Your task to perform on an android device: install app "Airtel Thanks" Image 0: 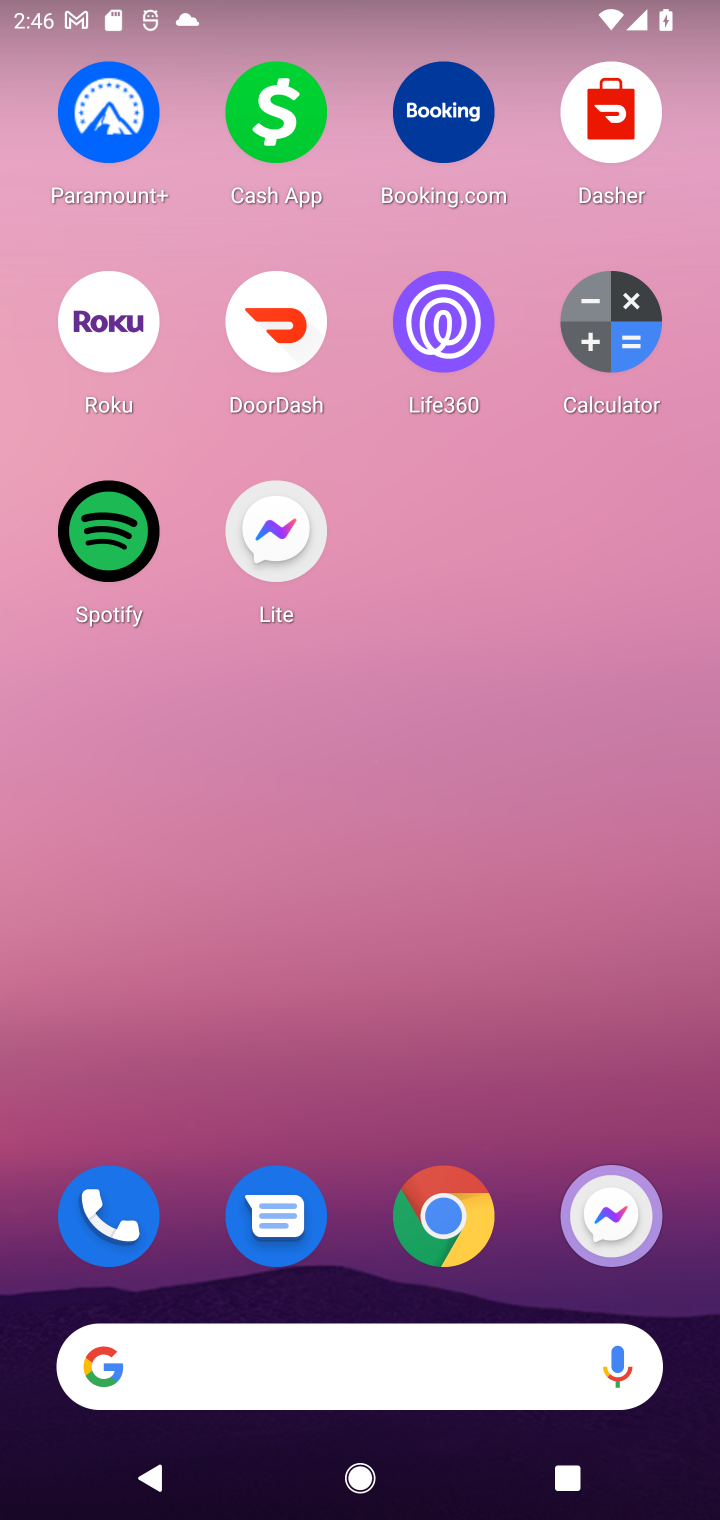
Step 0: drag from (410, 870) to (465, 397)
Your task to perform on an android device: install app "Airtel Thanks" Image 1: 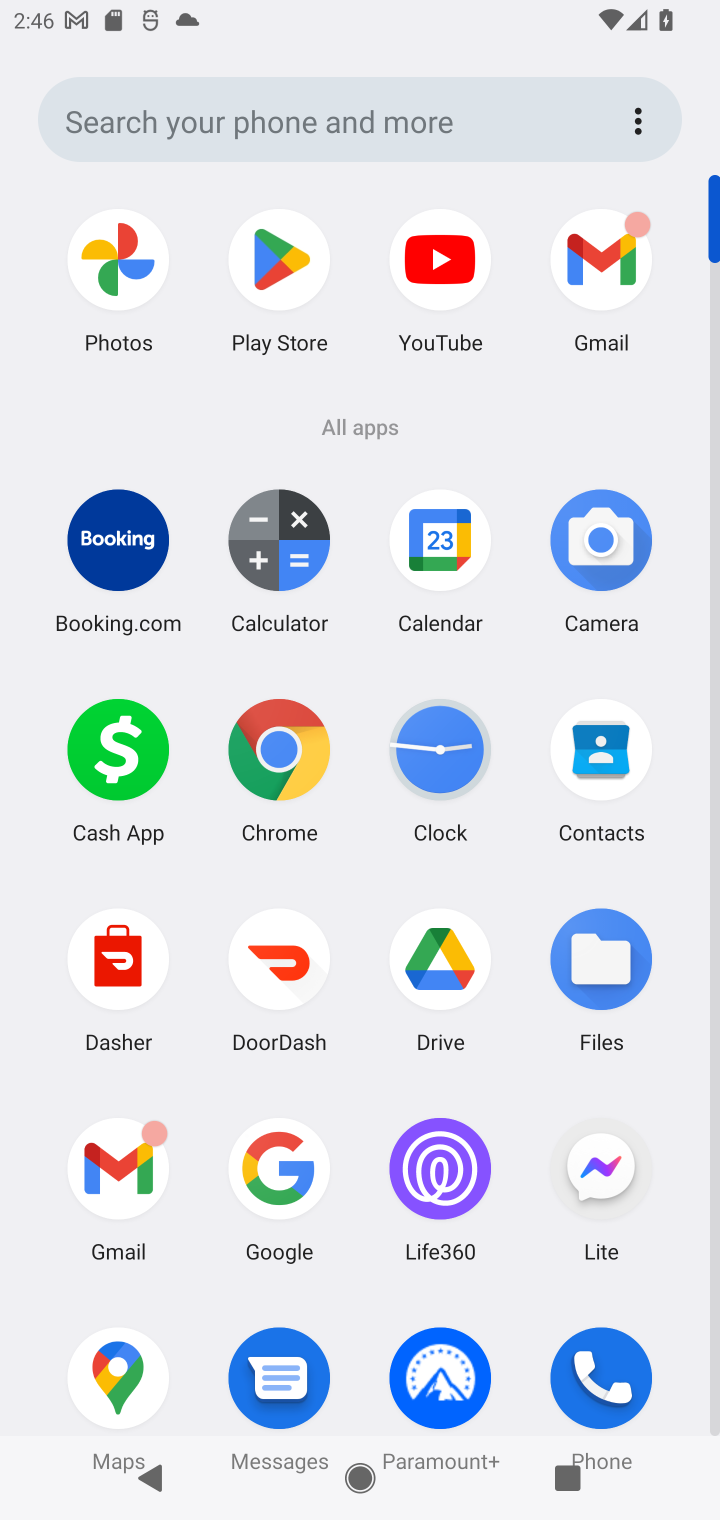
Step 1: click (244, 242)
Your task to perform on an android device: install app "Airtel Thanks" Image 2: 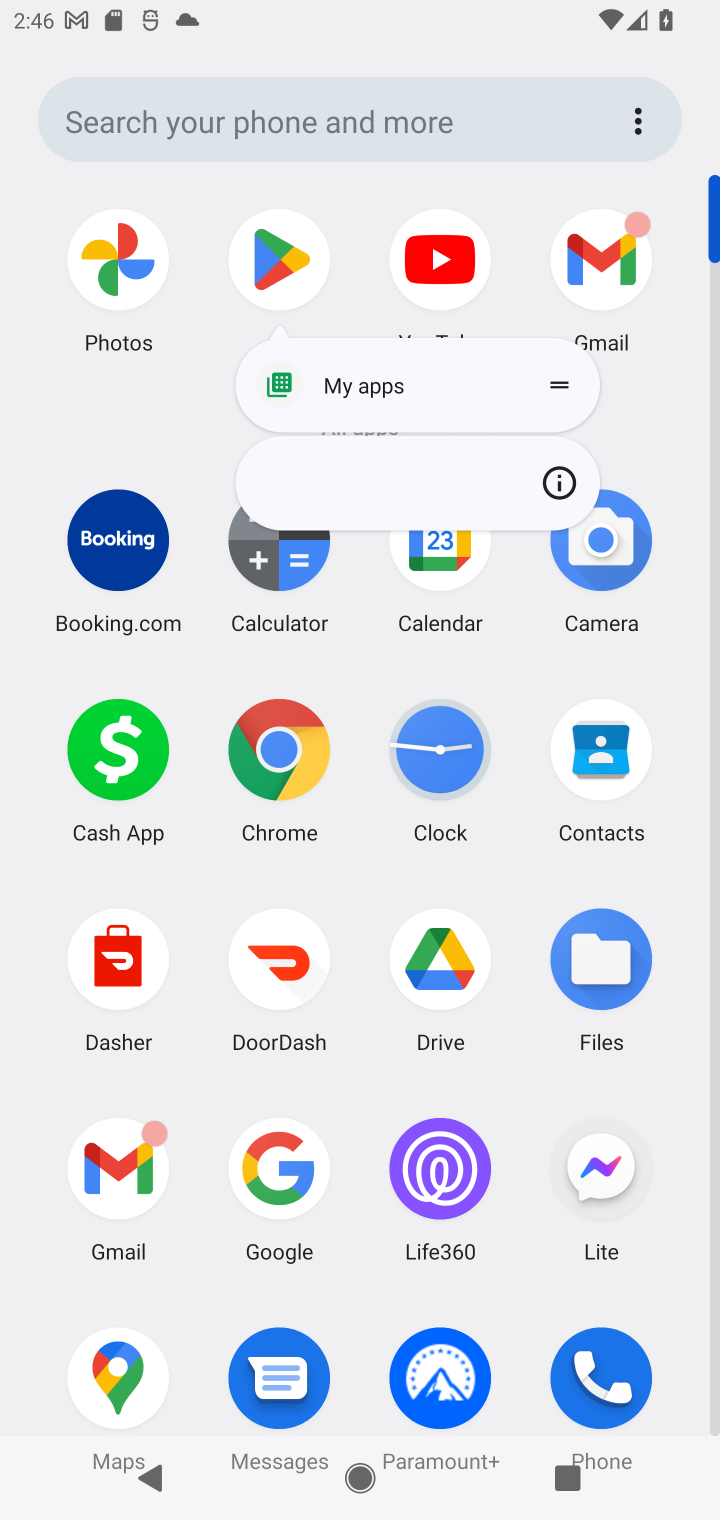
Step 2: click (249, 239)
Your task to perform on an android device: install app "Airtel Thanks" Image 3: 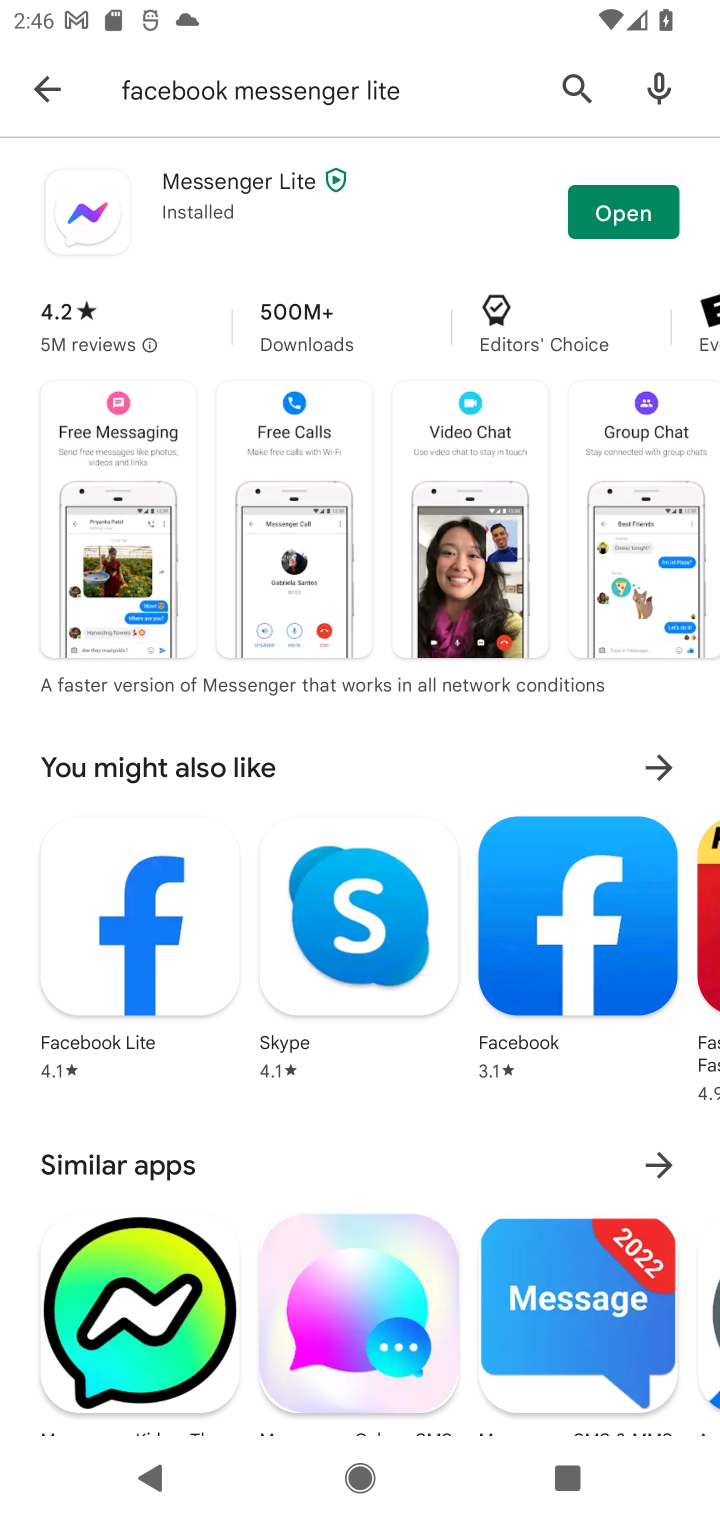
Step 3: click (51, 81)
Your task to perform on an android device: install app "Airtel Thanks" Image 4: 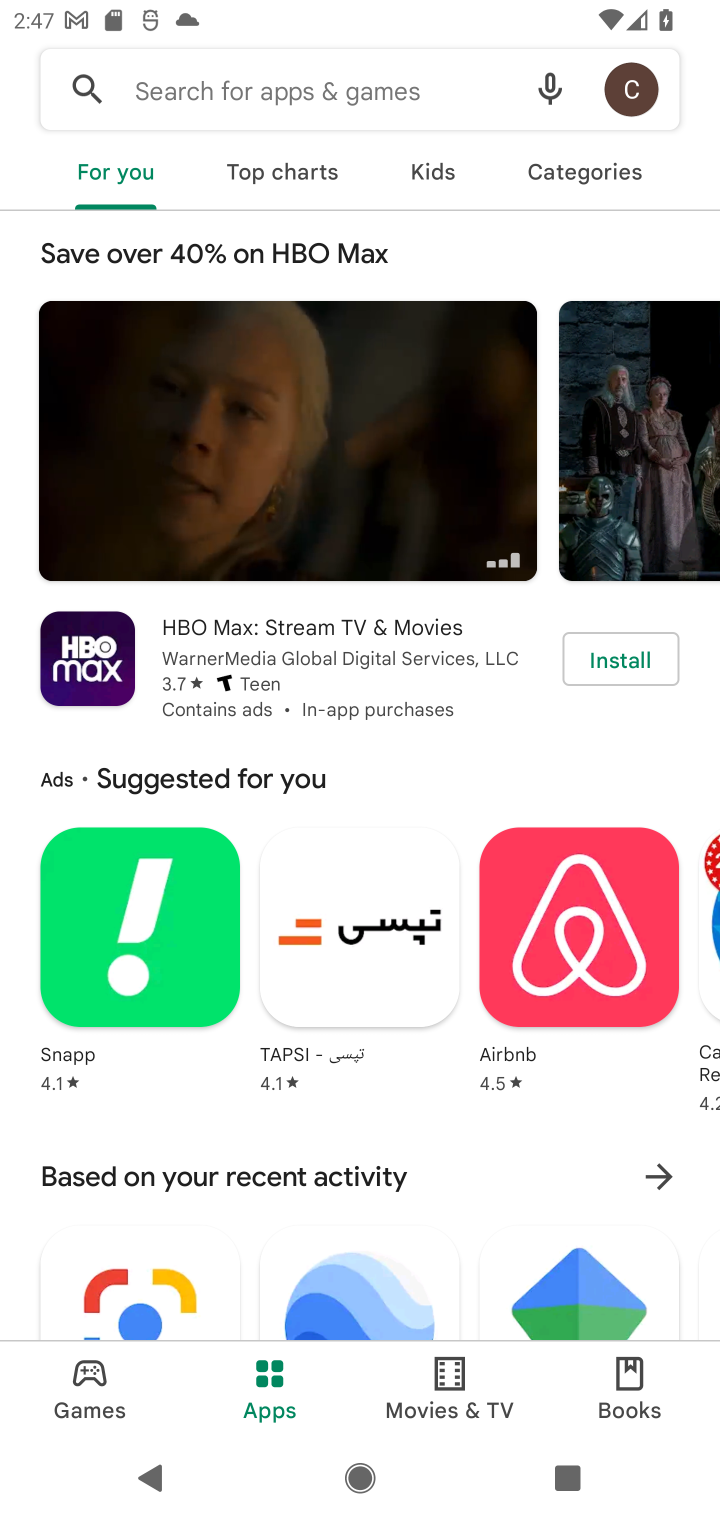
Step 4: click (299, 67)
Your task to perform on an android device: install app "Airtel Thanks" Image 5: 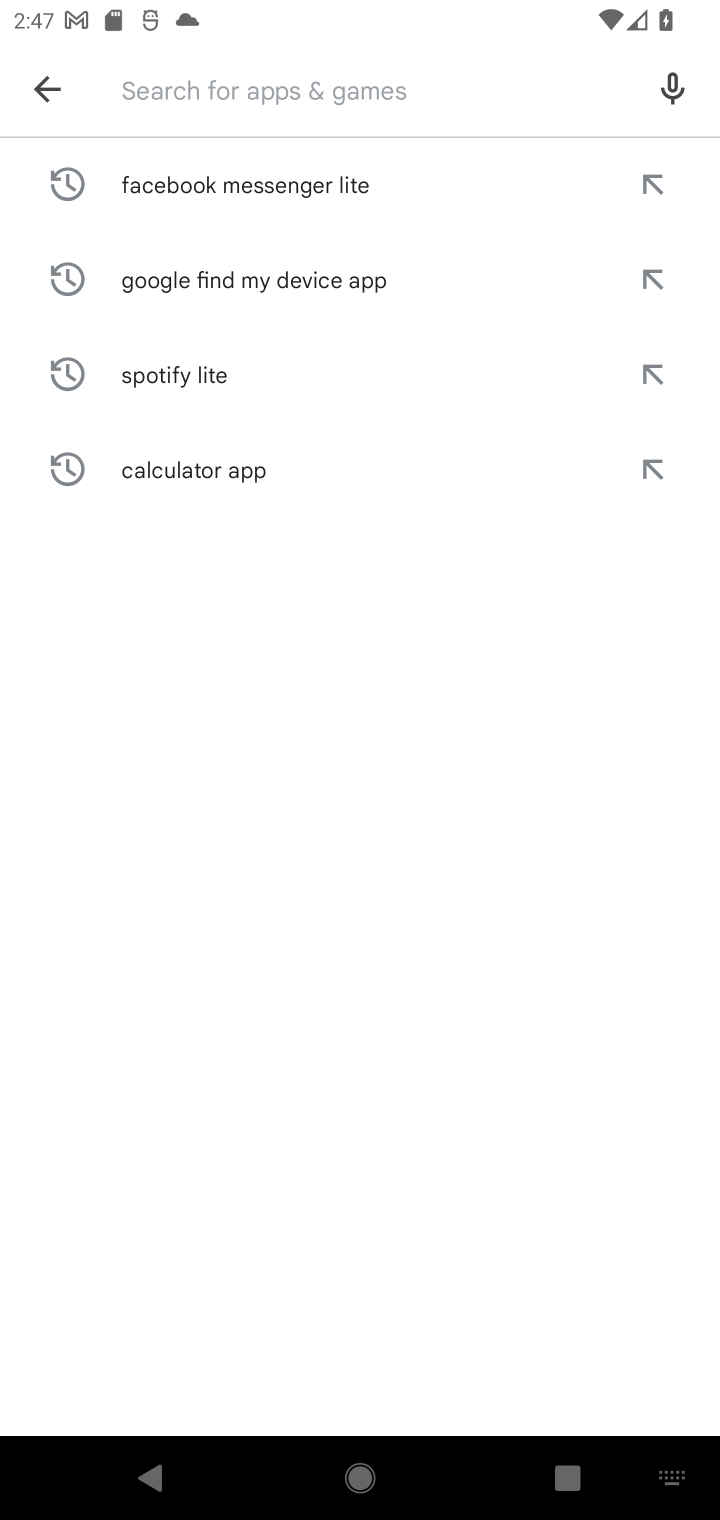
Step 5: type "Airtel Thanks "
Your task to perform on an android device: install app "Airtel Thanks" Image 6: 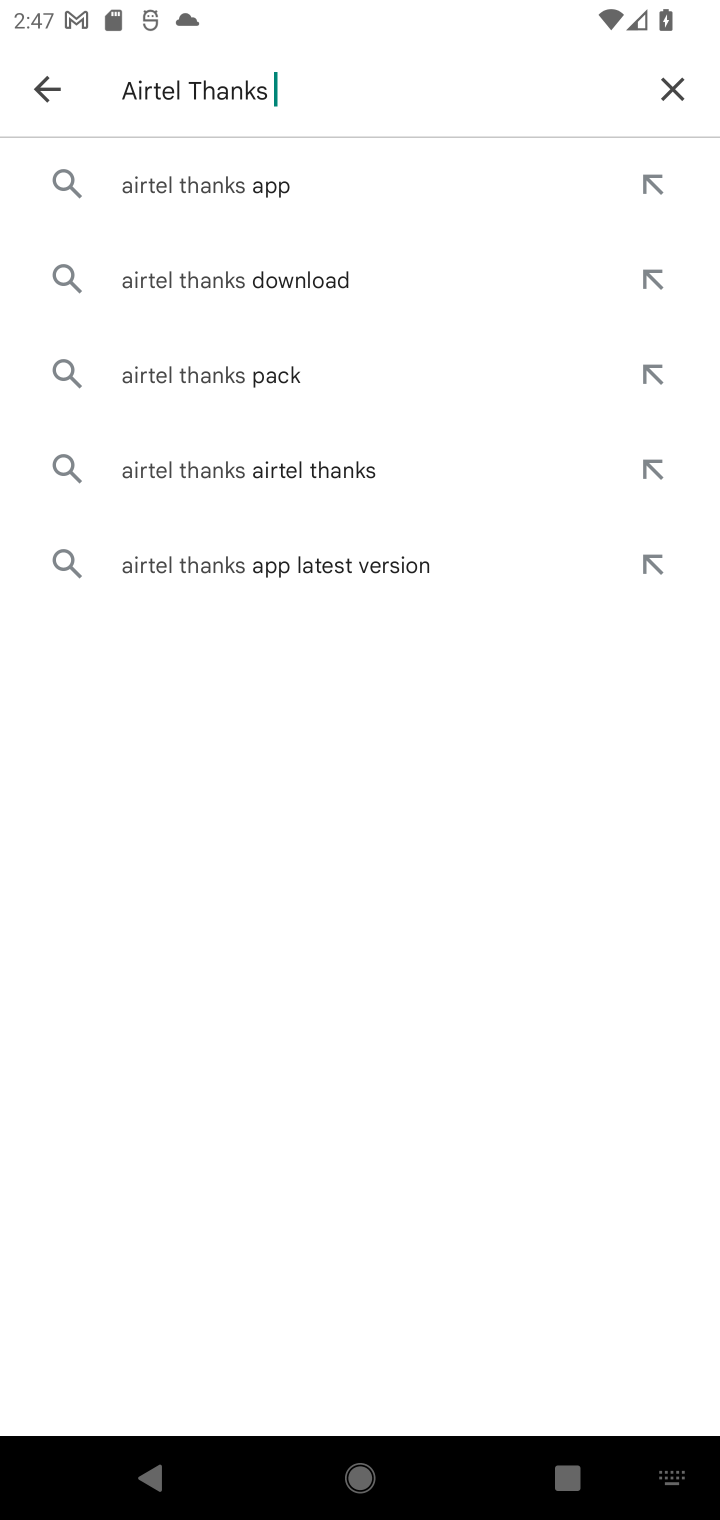
Step 6: click (432, 189)
Your task to perform on an android device: install app "Airtel Thanks" Image 7: 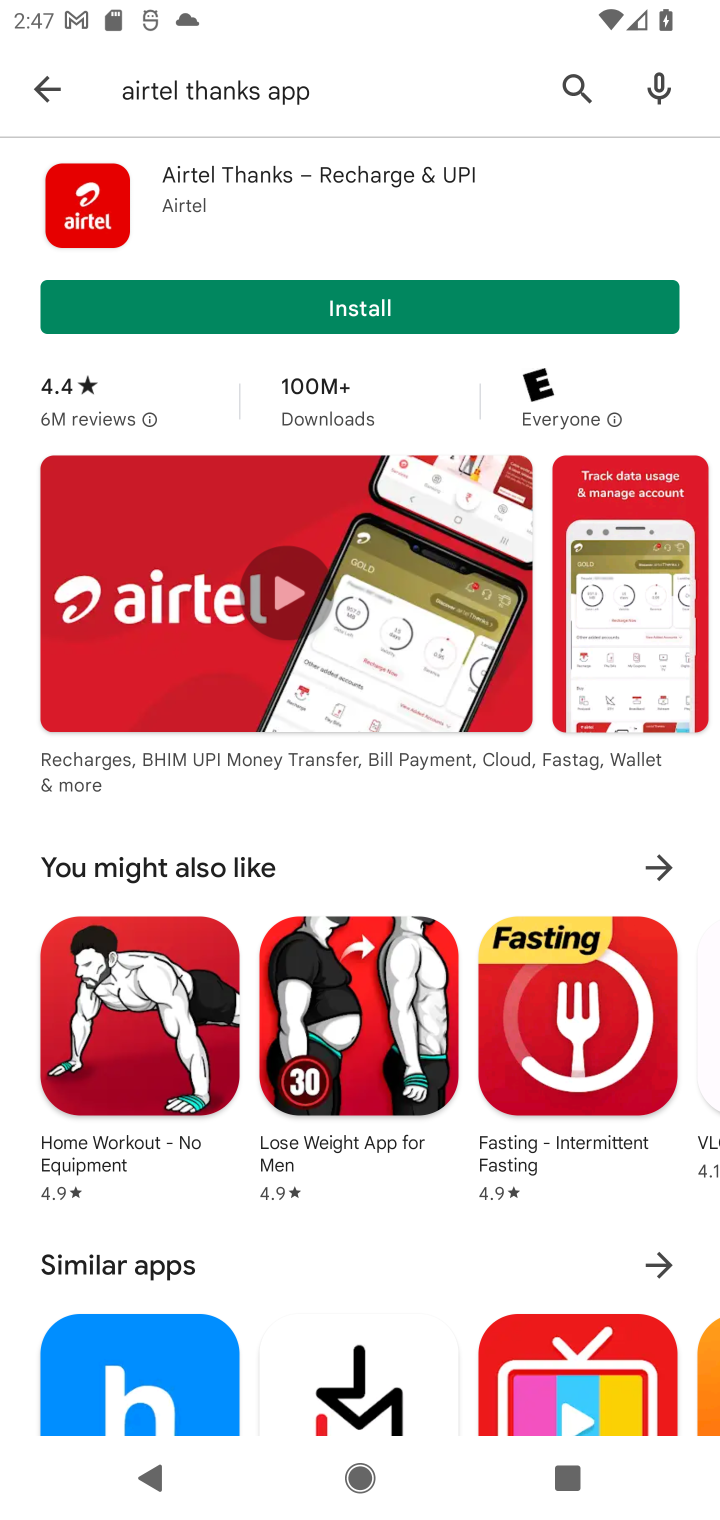
Step 7: click (437, 282)
Your task to perform on an android device: install app "Airtel Thanks" Image 8: 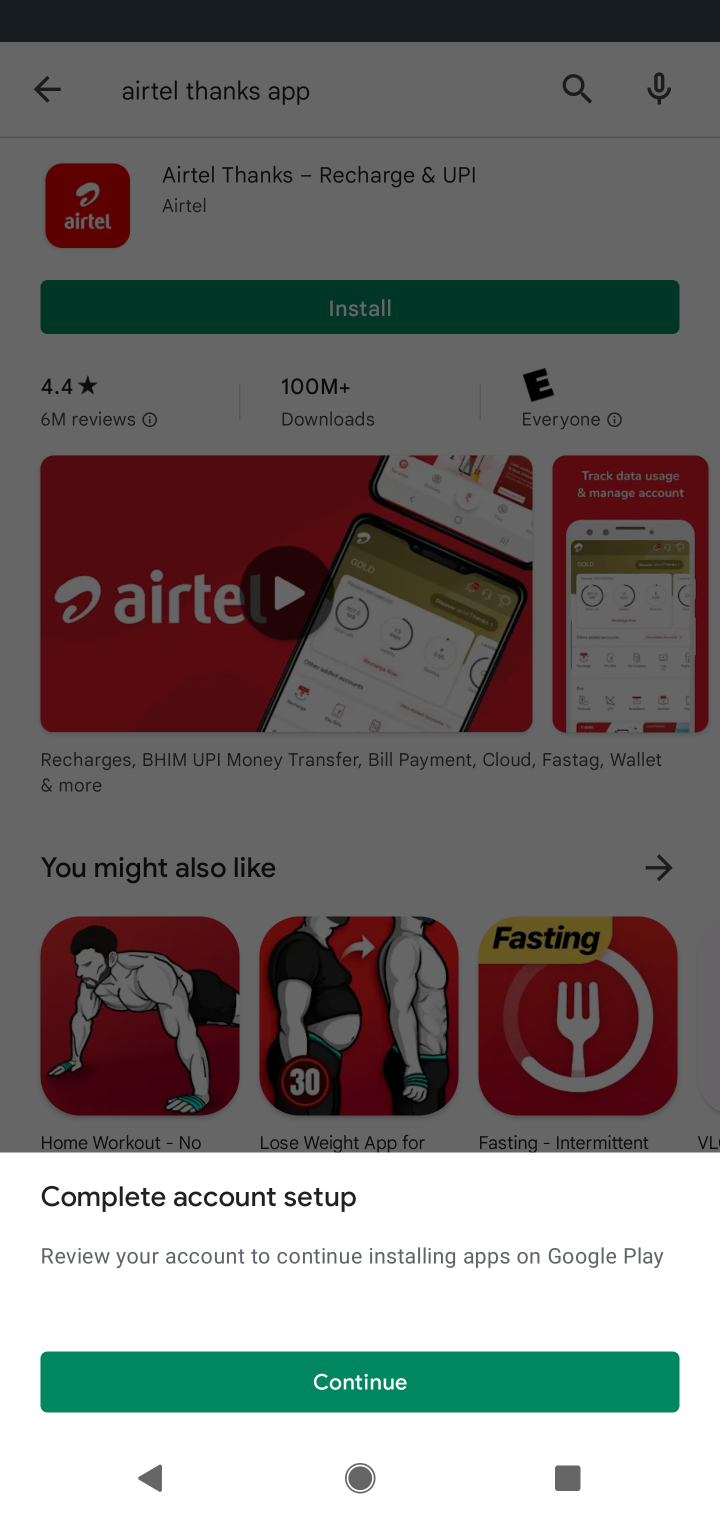
Step 8: task complete